Your task to perform on an android device: open app "NewsBreak: Local News & Alerts" Image 0: 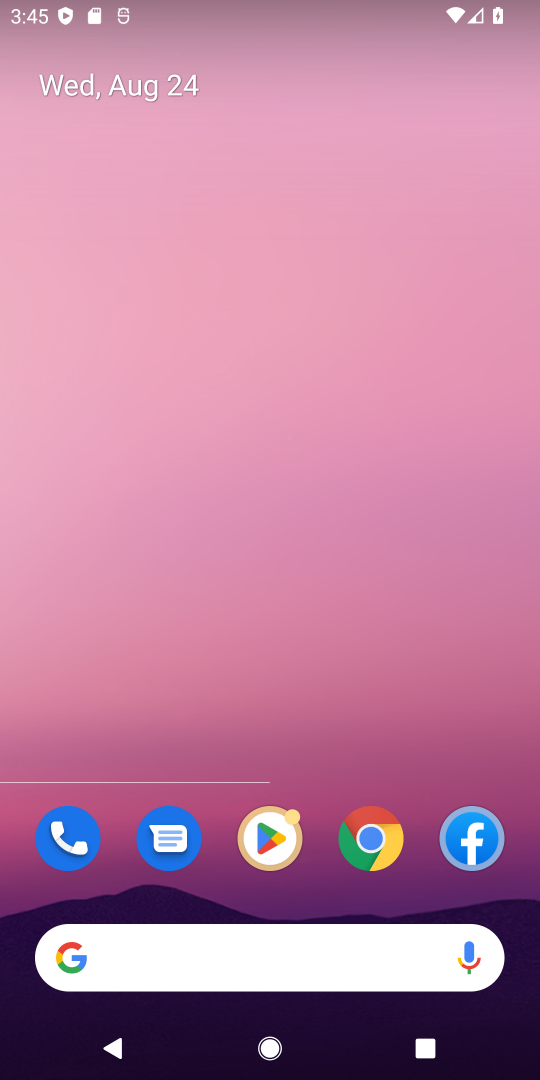
Step 0: press home button
Your task to perform on an android device: open app "NewsBreak: Local News & Alerts" Image 1: 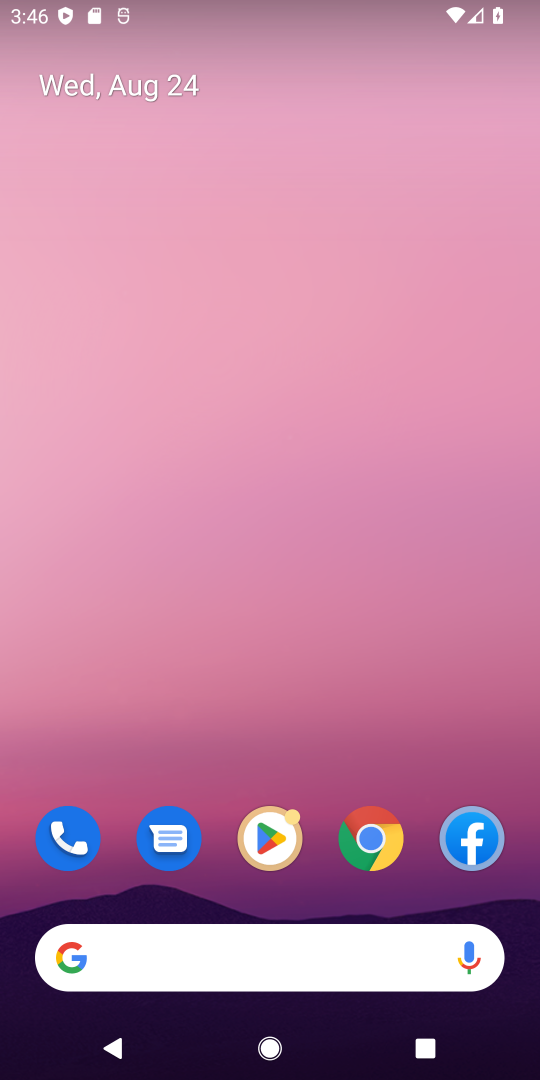
Step 1: click (263, 845)
Your task to perform on an android device: open app "NewsBreak: Local News & Alerts" Image 2: 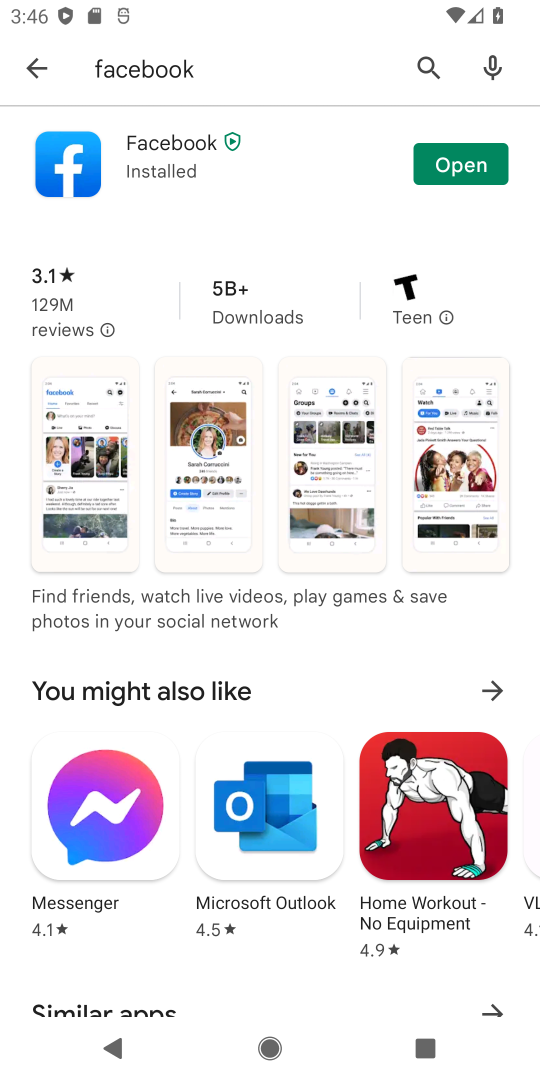
Step 2: click (423, 64)
Your task to perform on an android device: open app "NewsBreak: Local News & Alerts" Image 3: 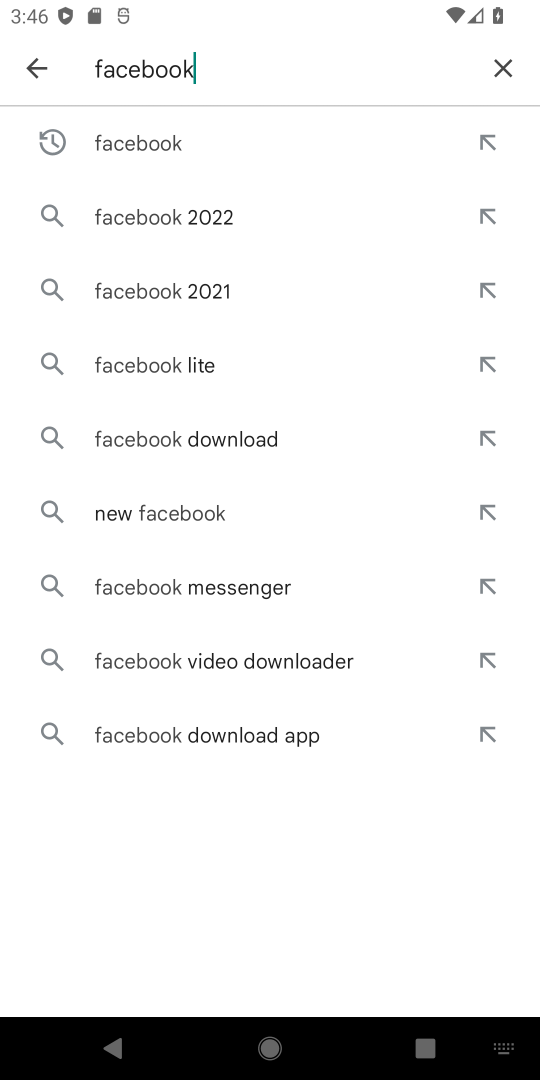
Step 3: click (502, 77)
Your task to perform on an android device: open app "NewsBreak: Local News & Alerts" Image 4: 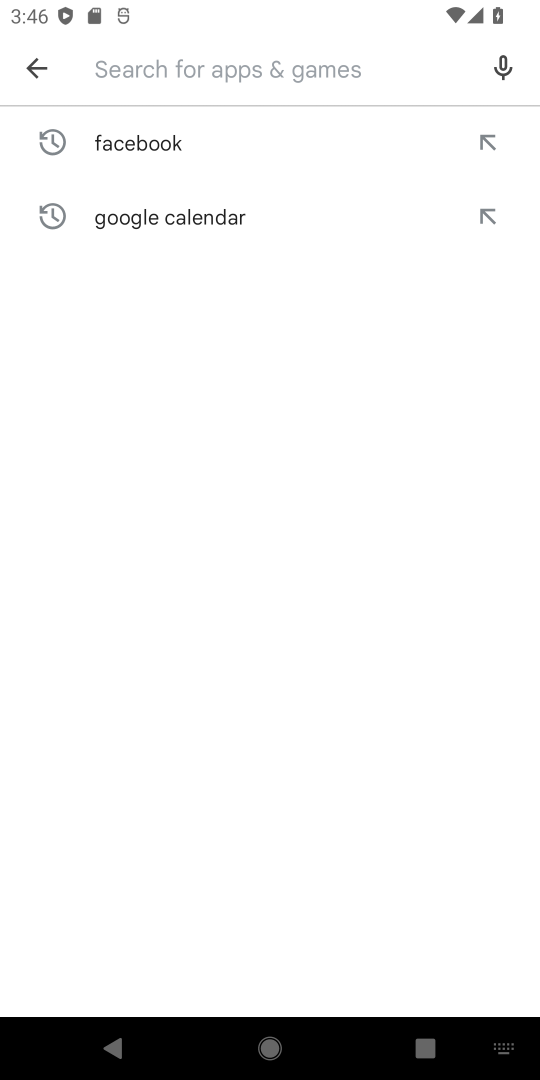
Step 4: type "NewsBreak: Local News & Alerts"
Your task to perform on an android device: open app "NewsBreak: Local News & Alerts" Image 5: 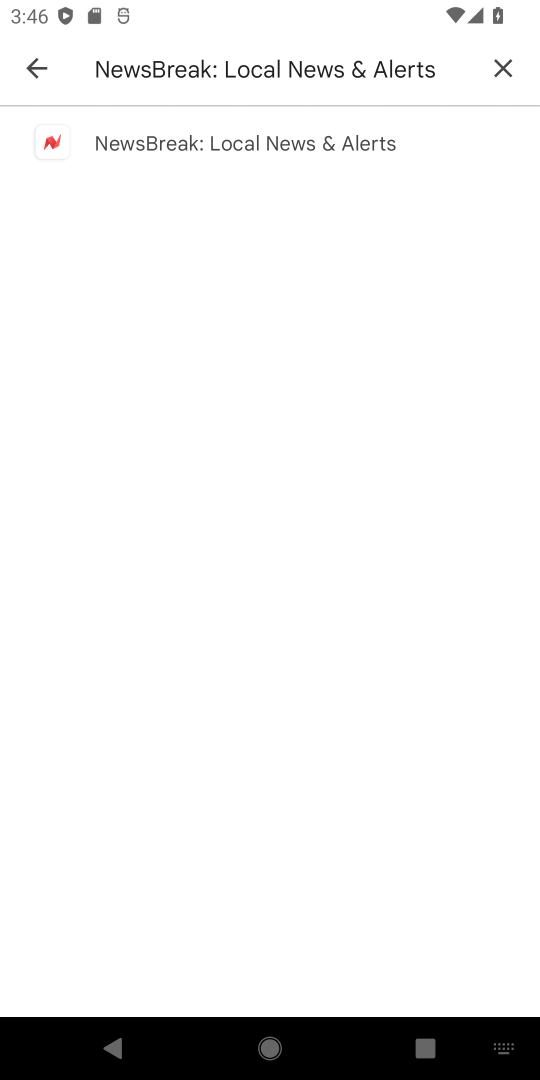
Step 5: click (224, 141)
Your task to perform on an android device: open app "NewsBreak: Local News & Alerts" Image 6: 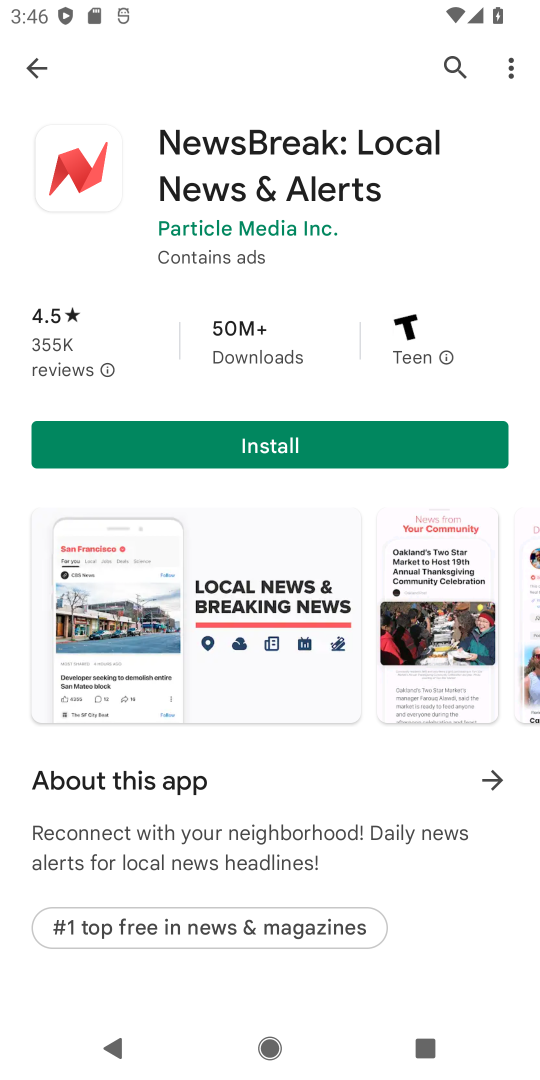
Step 6: task complete